Your task to perform on an android device: What is the recent news? Image 0: 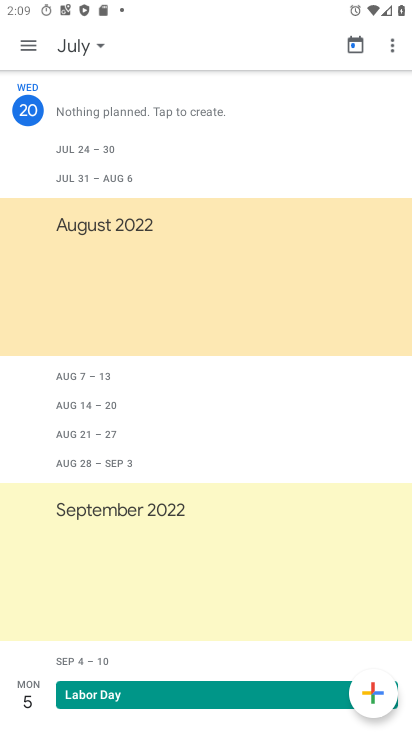
Step 0: press home button
Your task to perform on an android device: What is the recent news? Image 1: 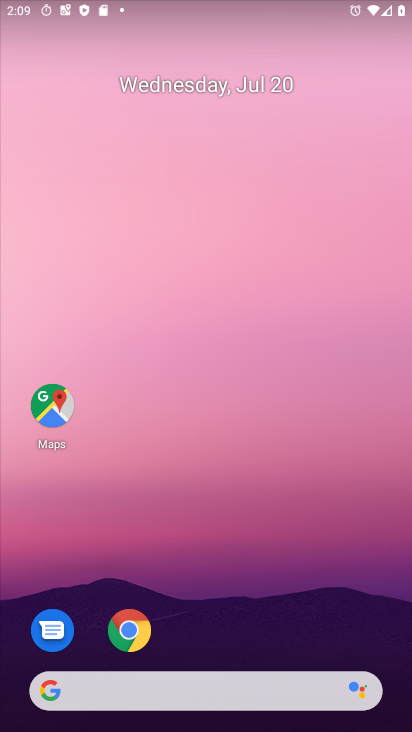
Step 1: click (180, 686)
Your task to perform on an android device: What is the recent news? Image 2: 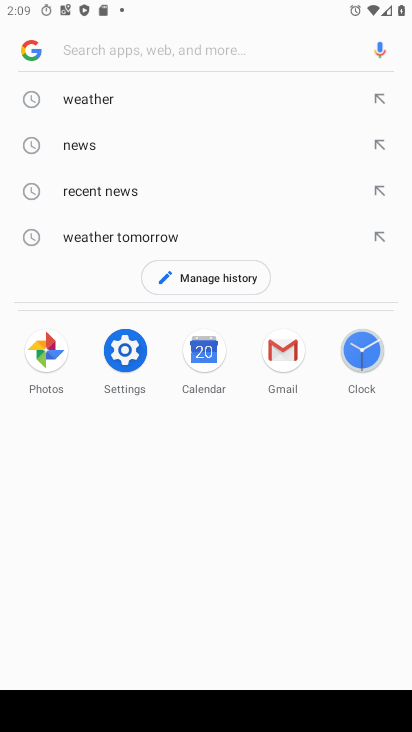
Step 2: click (98, 180)
Your task to perform on an android device: What is the recent news? Image 3: 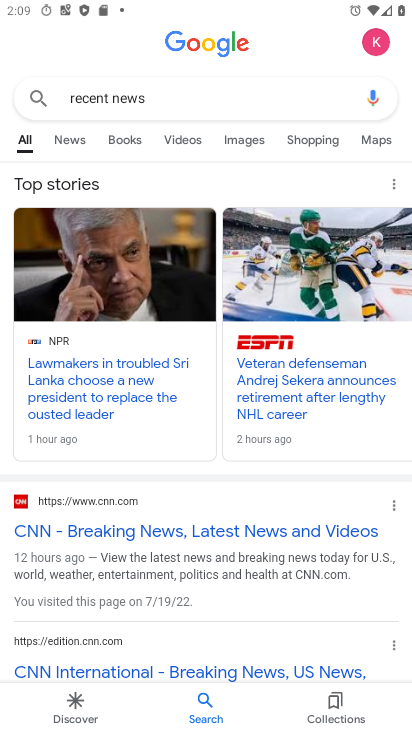
Step 3: click (68, 142)
Your task to perform on an android device: What is the recent news? Image 4: 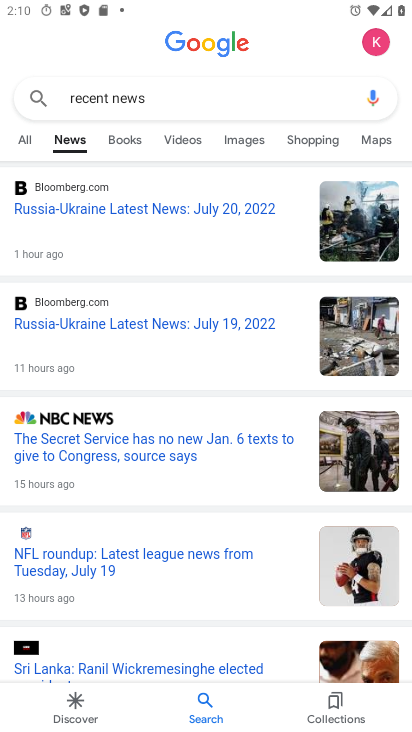
Step 4: task complete